Your task to perform on an android device: check the backup settings in the google photos Image 0: 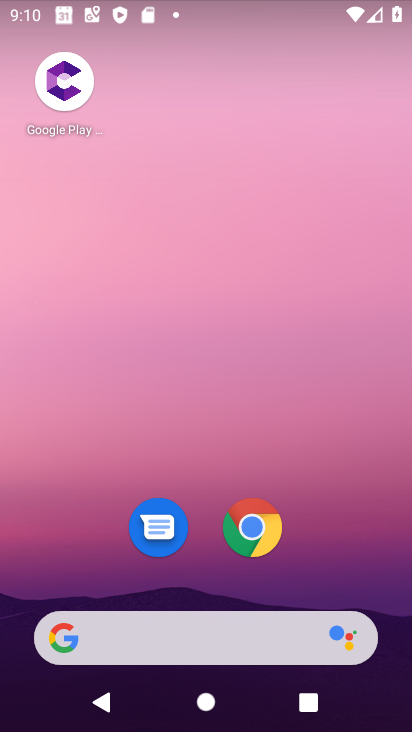
Step 0: drag from (297, 522) to (317, 334)
Your task to perform on an android device: check the backup settings in the google photos Image 1: 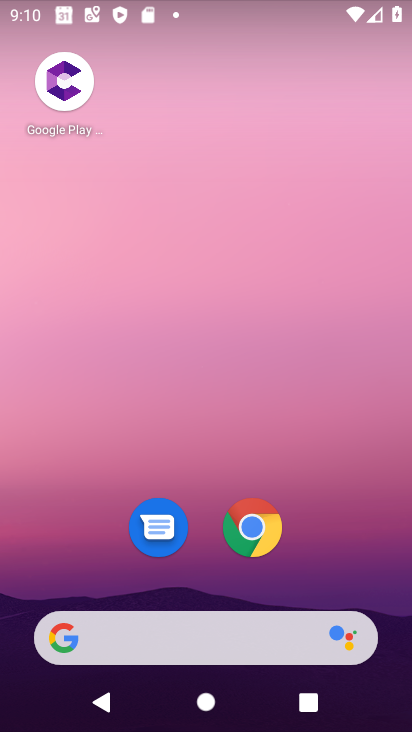
Step 1: drag from (325, 157) to (325, 113)
Your task to perform on an android device: check the backup settings in the google photos Image 2: 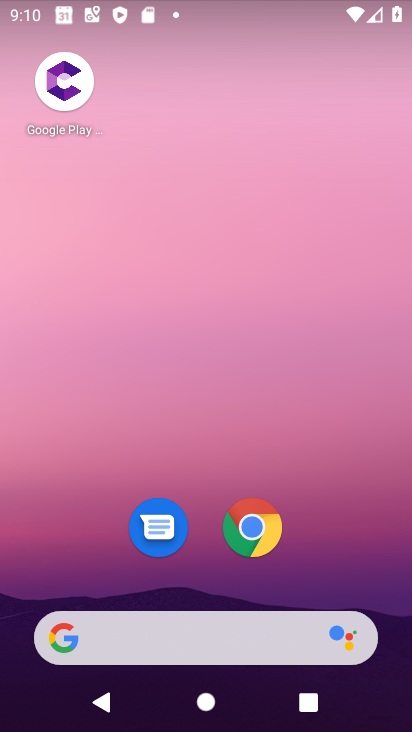
Step 2: drag from (295, 580) to (300, 117)
Your task to perform on an android device: check the backup settings in the google photos Image 3: 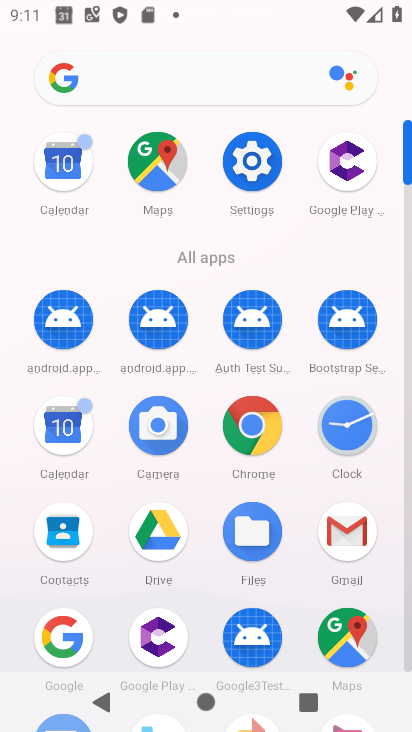
Step 3: drag from (285, 644) to (330, 367)
Your task to perform on an android device: check the backup settings in the google photos Image 4: 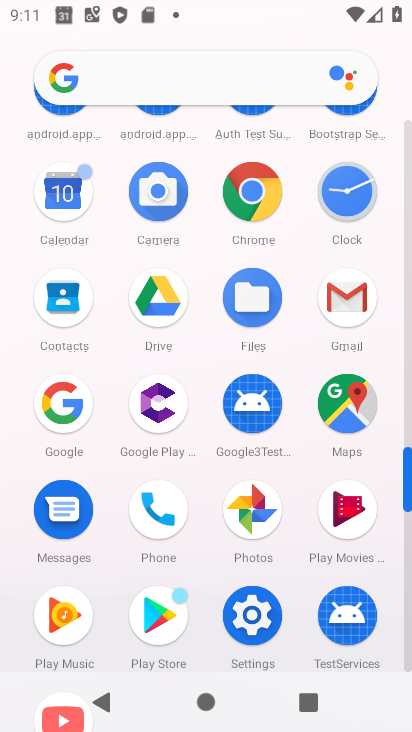
Step 4: click (248, 535)
Your task to perform on an android device: check the backup settings in the google photos Image 5: 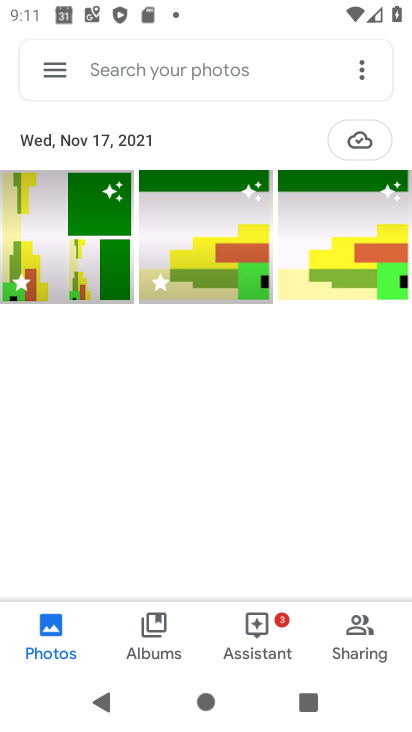
Step 5: click (60, 74)
Your task to perform on an android device: check the backup settings in the google photos Image 6: 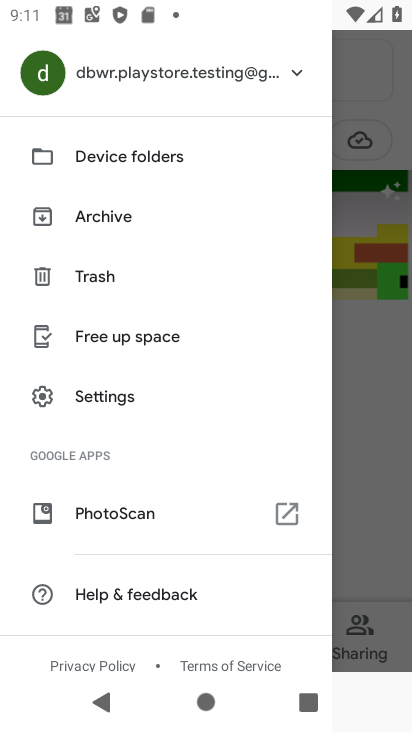
Step 6: click (108, 395)
Your task to perform on an android device: check the backup settings in the google photos Image 7: 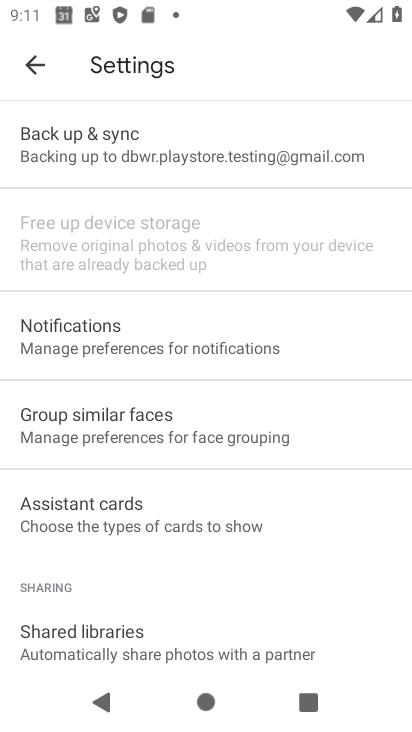
Step 7: click (156, 137)
Your task to perform on an android device: check the backup settings in the google photos Image 8: 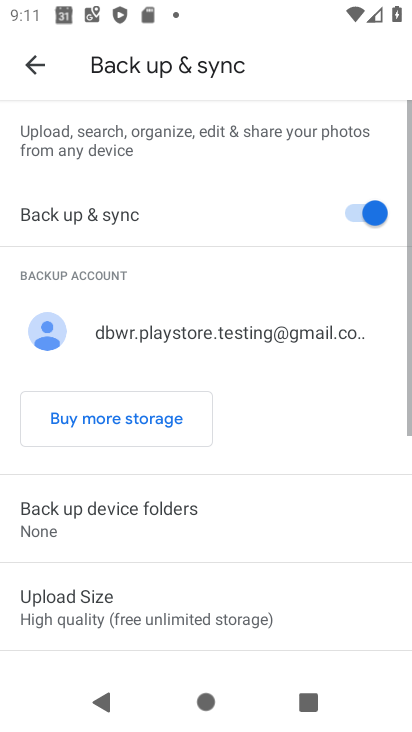
Step 8: task complete